Your task to perform on an android device: delete location history Image 0: 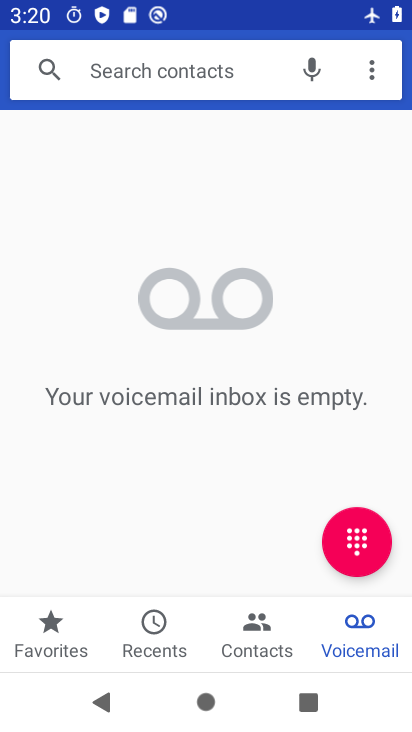
Step 0: press home button
Your task to perform on an android device: delete location history Image 1: 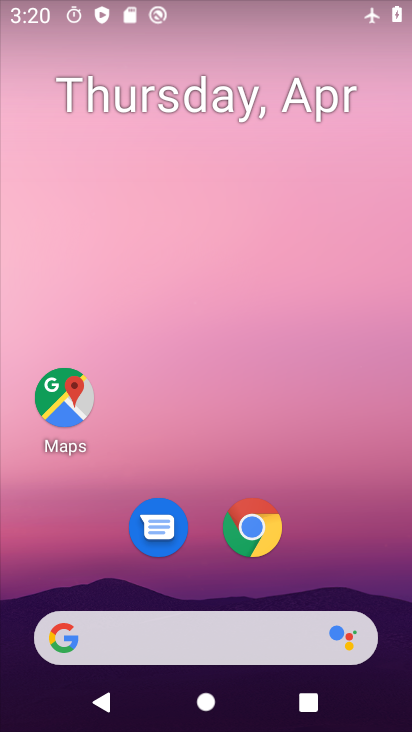
Step 1: drag from (207, 559) to (252, 225)
Your task to perform on an android device: delete location history Image 2: 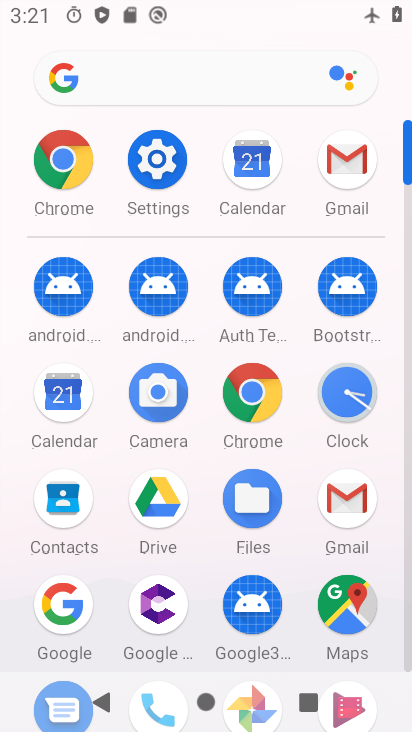
Step 2: click (346, 590)
Your task to perform on an android device: delete location history Image 3: 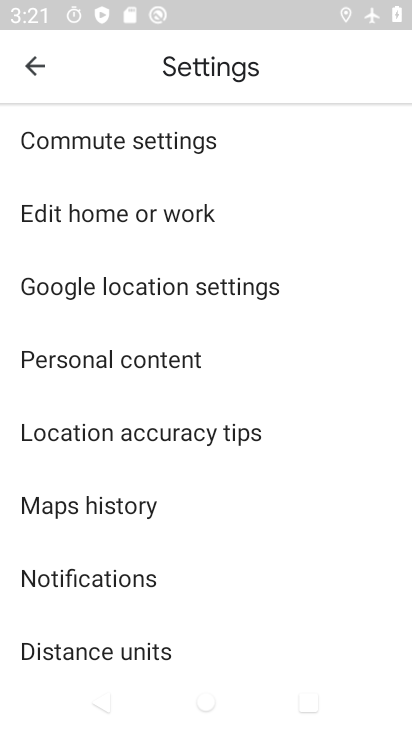
Step 3: drag from (188, 593) to (220, 351)
Your task to perform on an android device: delete location history Image 4: 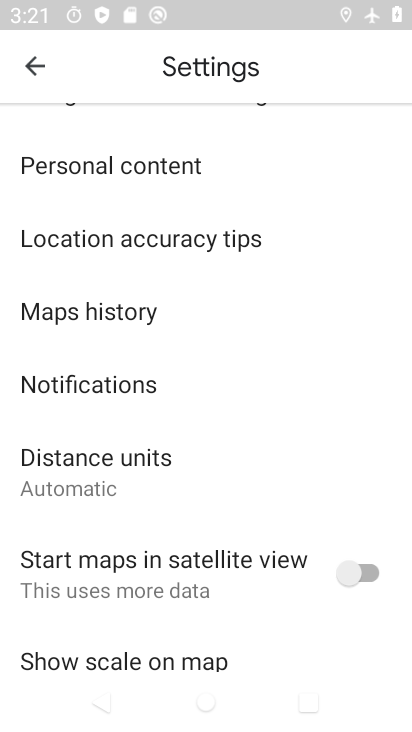
Step 4: click (123, 315)
Your task to perform on an android device: delete location history Image 5: 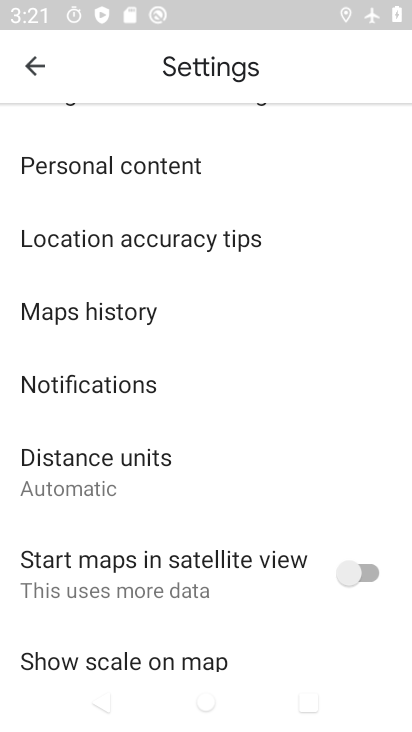
Step 5: click (124, 325)
Your task to perform on an android device: delete location history Image 6: 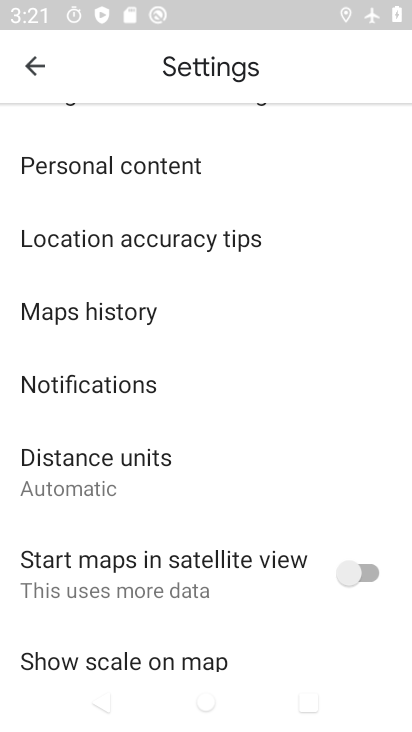
Step 6: task complete